Your task to perform on an android device: open chrome privacy settings Image 0: 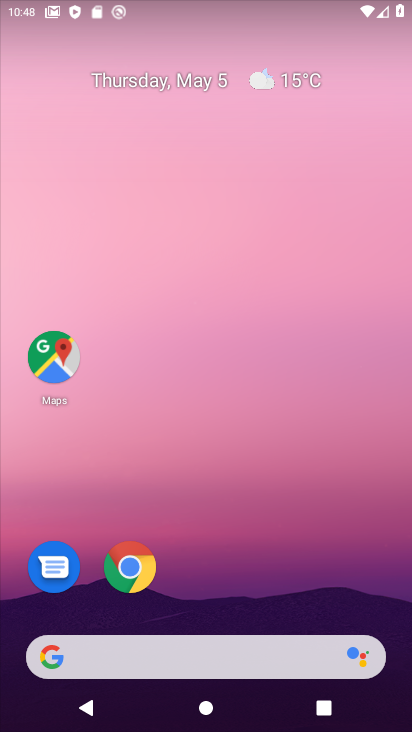
Step 0: click (133, 567)
Your task to perform on an android device: open chrome privacy settings Image 1: 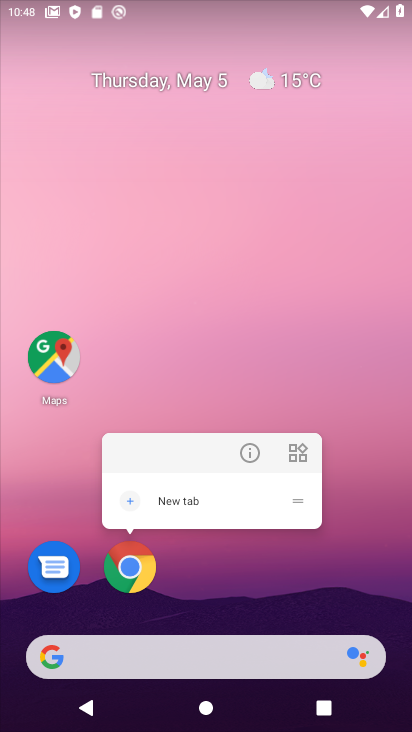
Step 1: click (138, 582)
Your task to perform on an android device: open chrome privacy settings Image 2: 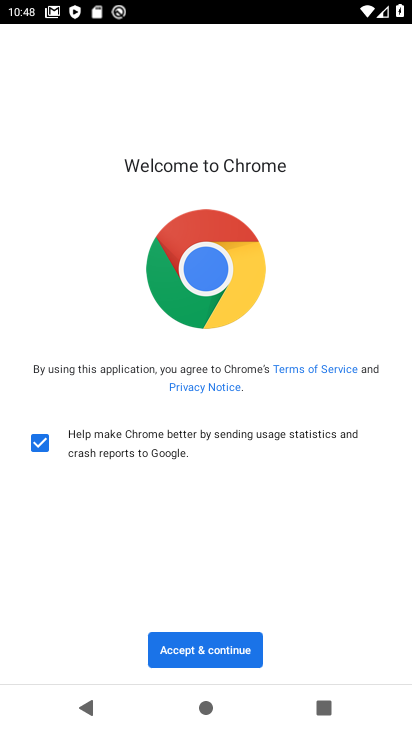
Step 2: click (226, 660)
Your task to perform on an android device: open chrome privacy settings Image 3: 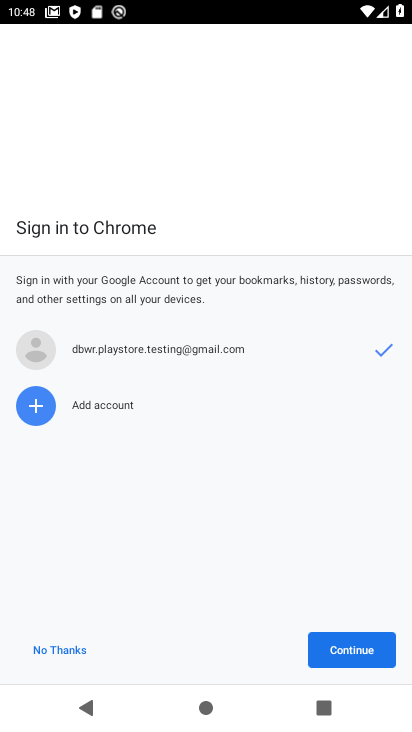
Step 3: click (346, 648)
Your task to perform on an android device: open chrome privacy settings Image 4: 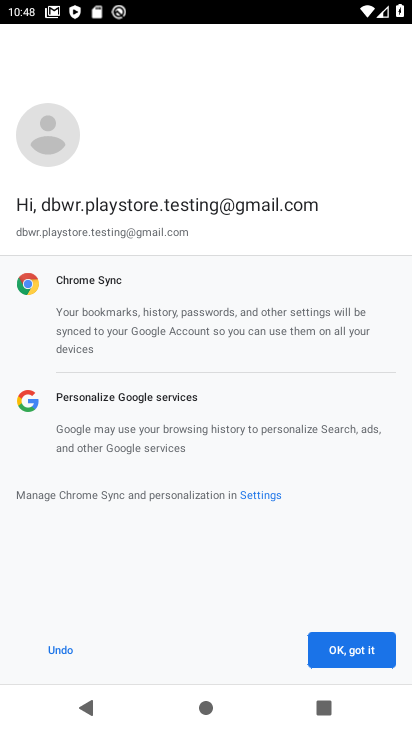
Step 4: click (346, 648)
Your task to perform on an android device: open chrome privacy settings Image 5: 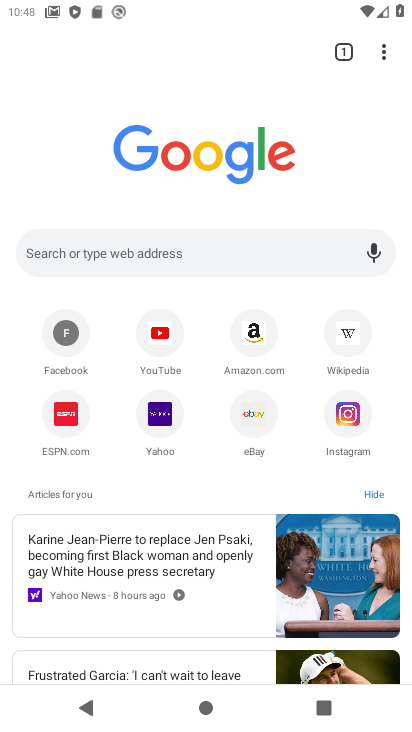
Step 5: drag from (382, 52) to (189, 438)
Your task to perform on an android device: open chrome privacy settings Image 6: 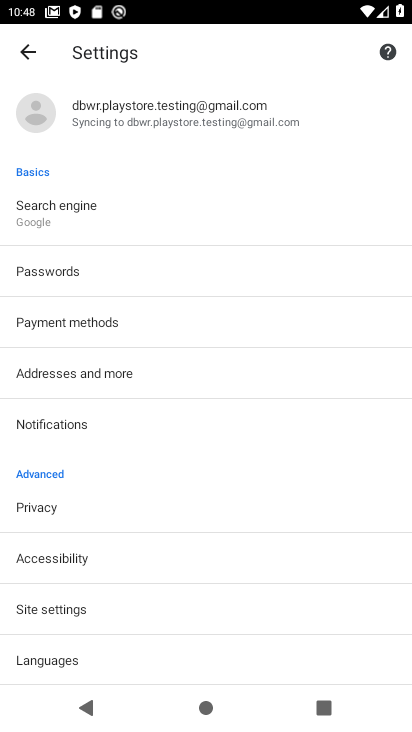
Step 6: click (29, 503)
Your task to perform on an android device: open chrome privacy settings Image 7: 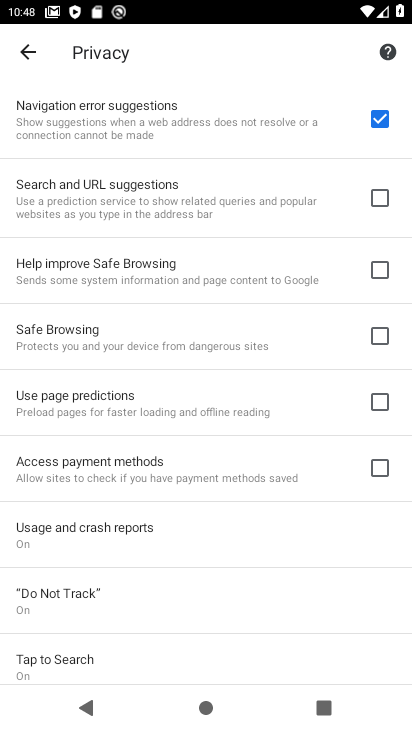
Step 7: task complete